Your task to perform on an android device: Open Wikipedia Image 0: 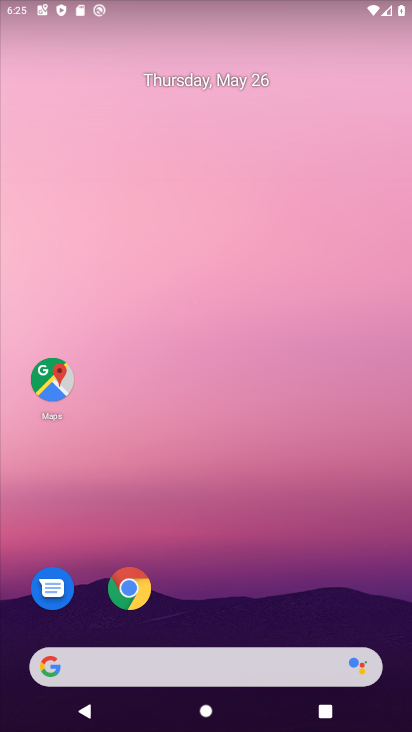
Step 0: drag from (299, 616) to (209, 17)
Your task to perform on an android device: Open Wikipedia Image 1: 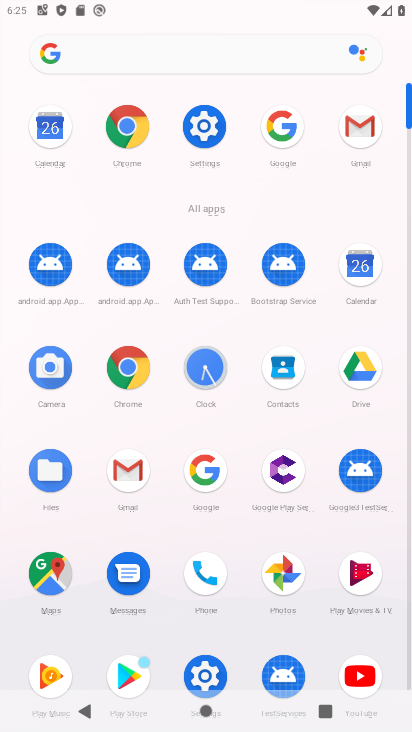
Step 1: click (195, 473)
Your task to perform on an android device: Open Wikipedia Image 2: 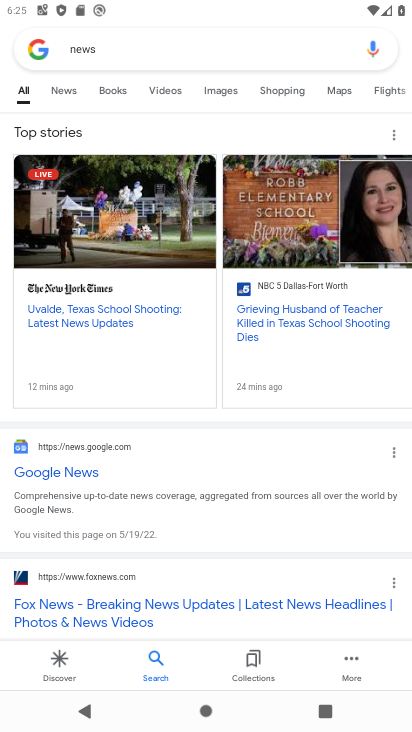
Step 2: press back button
Your task to perform on an android device: Open Wikipedia Image 3: 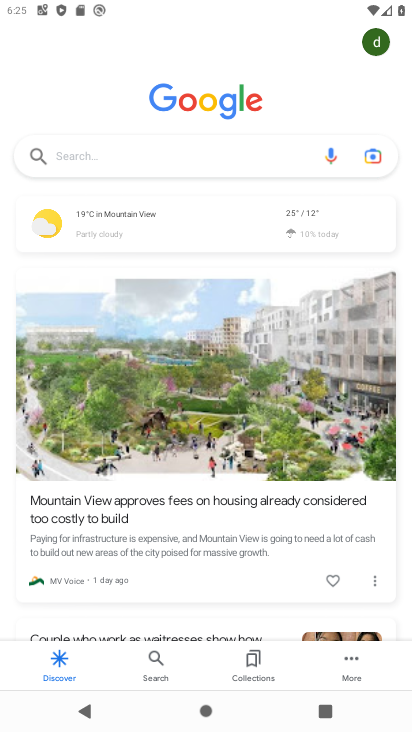
Step 3: click (118, 150)
Your task to perform on an android device: Open Wikipedia Image 4: 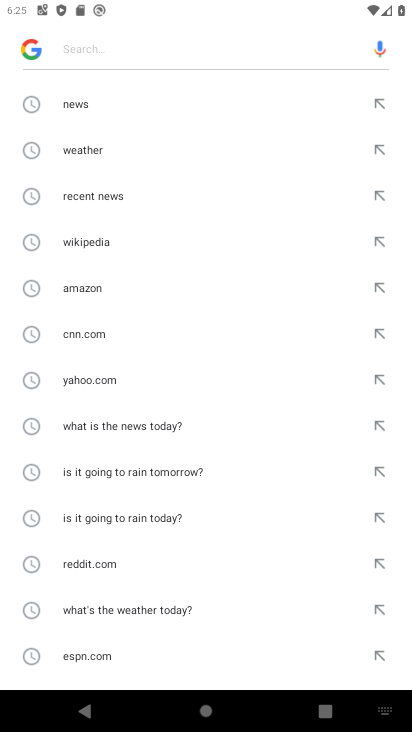
Step 4: drag from (126, 552) to (147, 344)
Your task to perform on an android device: Open Wikipedia Image 5: 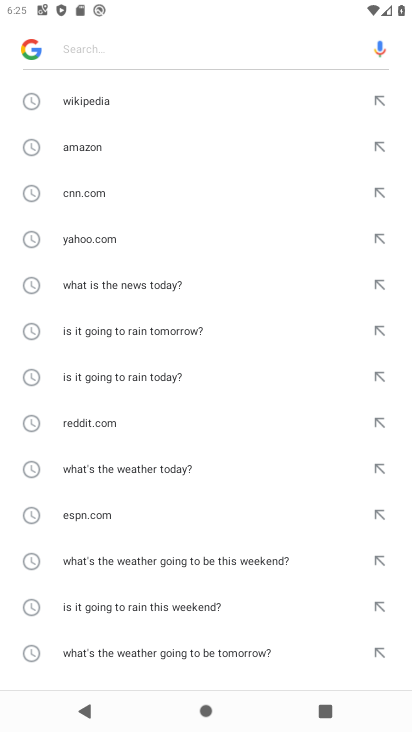
Step 5: click (83, 110)
Your task to perform on an android device: Open Wikipedia Image 6: 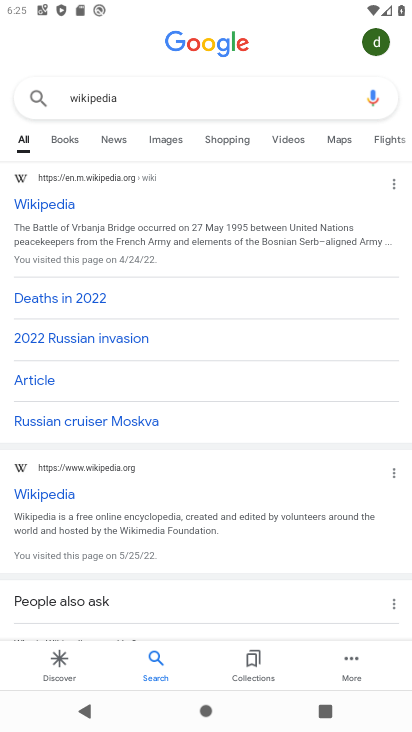
Step 6: task complete